Your task to perform on an android device: Turn off the flashlight Image 0: 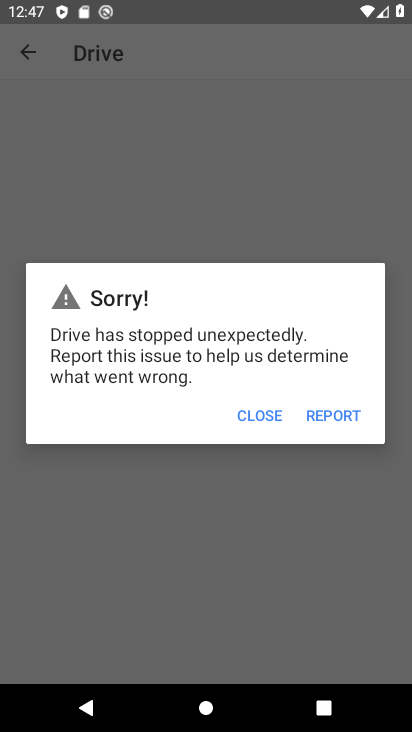
Step 0: press home button
Your task to perform on an android device: Turn off the flashlight Image 1: 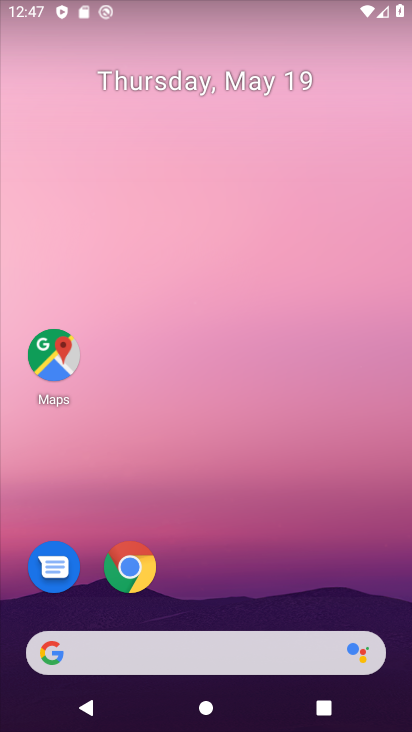
Step 1: task complete